Your task to perform on an android device: turn on translation in the chrome app Image 0: 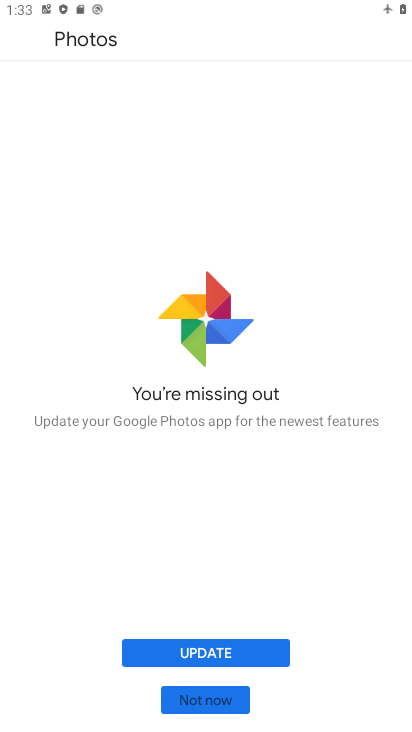
Step 0: press home button
Your task to perform on an android device: turn on translation in the chrome app Image 1: 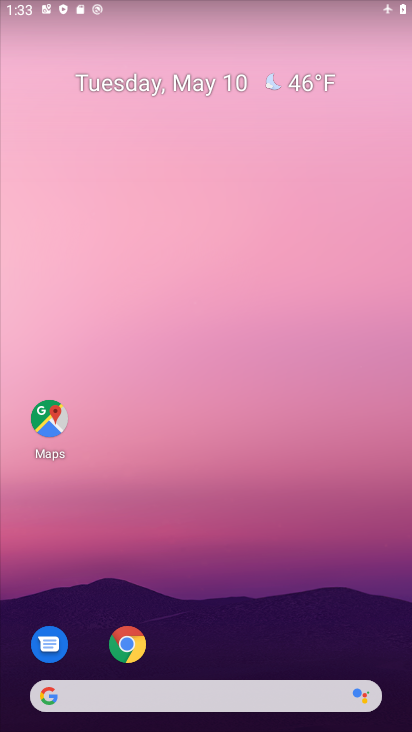
Step 1: drag from (259, 602) to (284, 266)
Your task to perform on an android device: turn on translation in the chrome app Image 2: 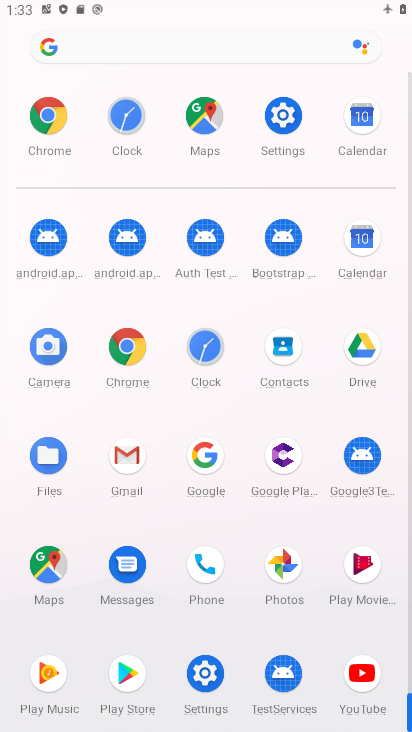
Step 2: click (140, 347)
Your task to perform on an android device: turn on translation in the chrome app Image 3: 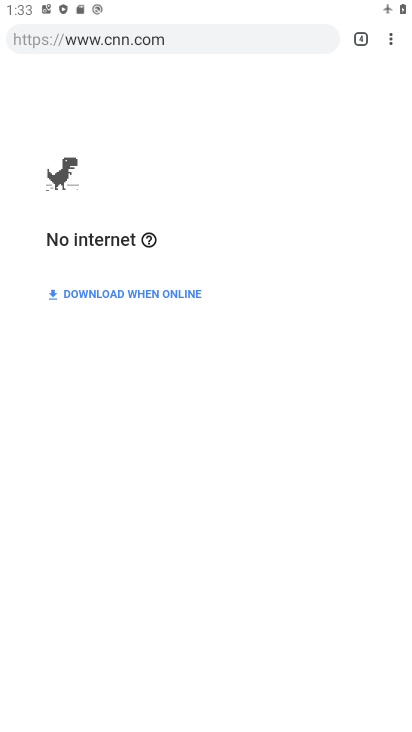
Step 3: click (392, 48)
Your task to perform on an android device: turn on translation in the chrome app Image 4: 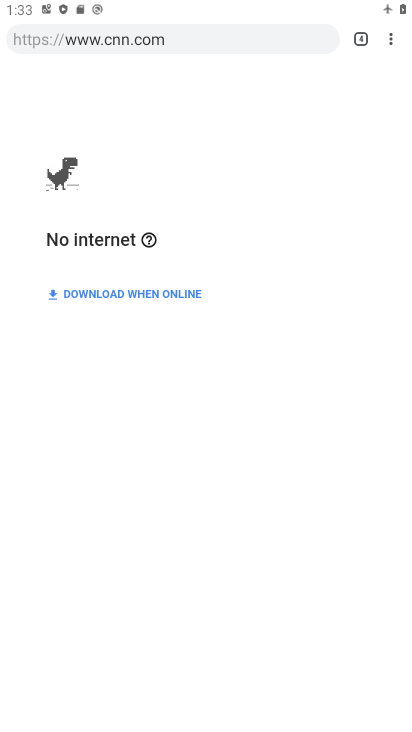
Step 4: click (395, 44)
Your task to perform on an android device: turn on translation in the chrome app Image 5: 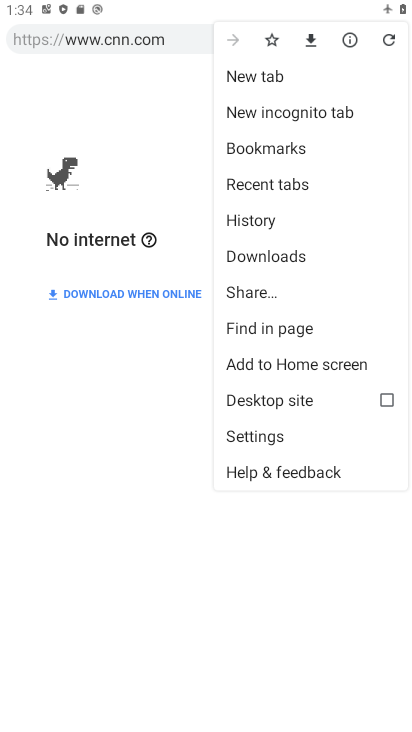
Step 5: click (284, 441)
Your task to perform on an android device: turn on translation in the chrome app Image 6: 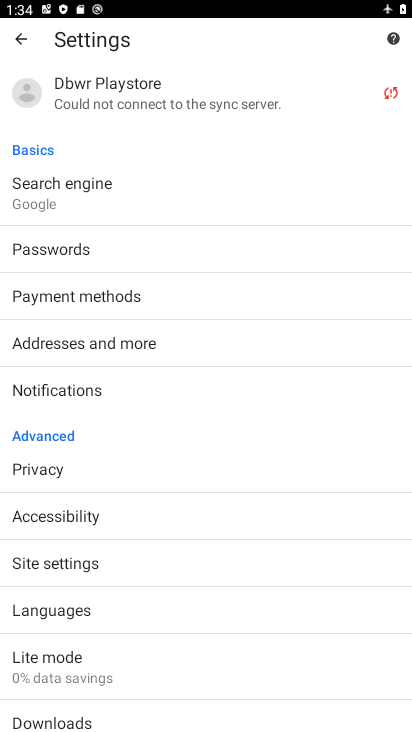
Step 6: click (109, 615)
Your task to perform on an android device: turn on translation in the chrome app Image 7: 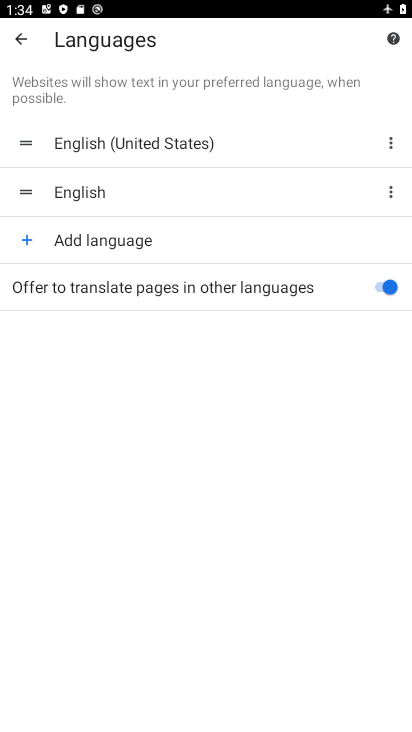
Step 7: task complete